Your task to perform on an android device: move an email to a new category in the gmail app Image 0: 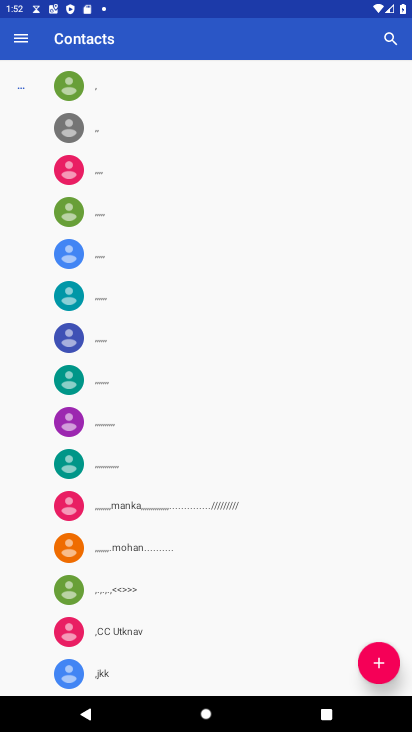
Step 0: press home button
Your task to perform on an android device: move an email to a new category in the gmail app Image 1: 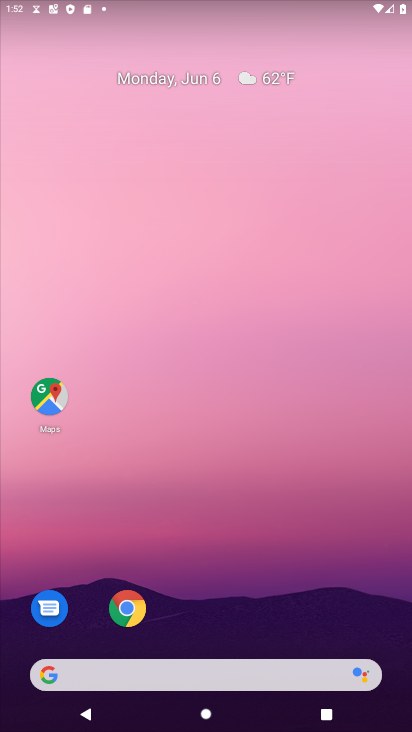
Step 1: drag from (359, 487) to (404, 130)
Your task to perform on an android device: move an email to a new category in the gmail app Image 2: 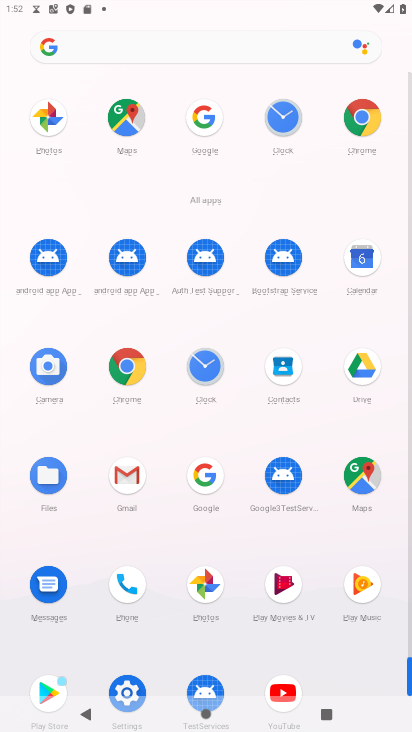
Step 2: click (121, 479)
Your task to perform on an android device: move an email to a new category in the gmail app Image 3: 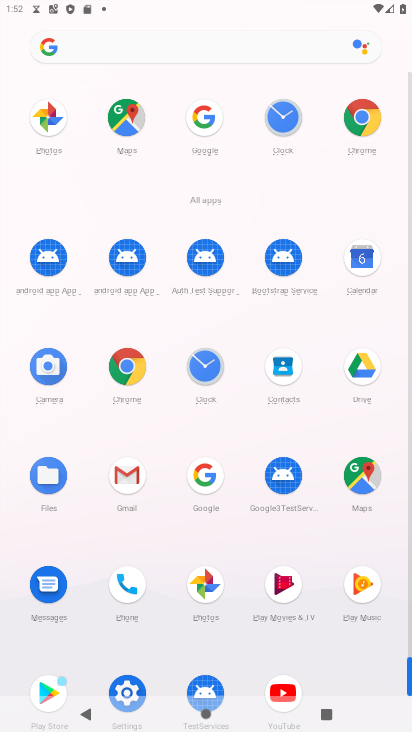
Step 3: click (123, 477)
Your task to perform on an android device: move an email to a new category in the gmail app Image 4: 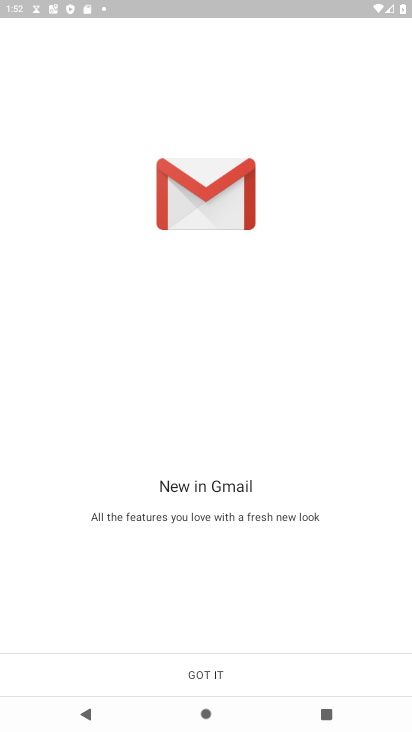
Step 4: click (220, 673)
Your task to perform on an android device: move an email to a new category in the gmail app Image 5: 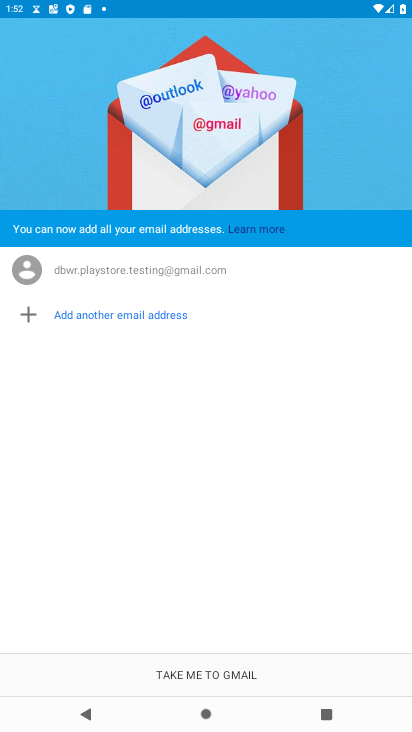
Step 5: click (207, 661)
Your task to perform on an android device: move an email to a new category in the gmail app Image 6: 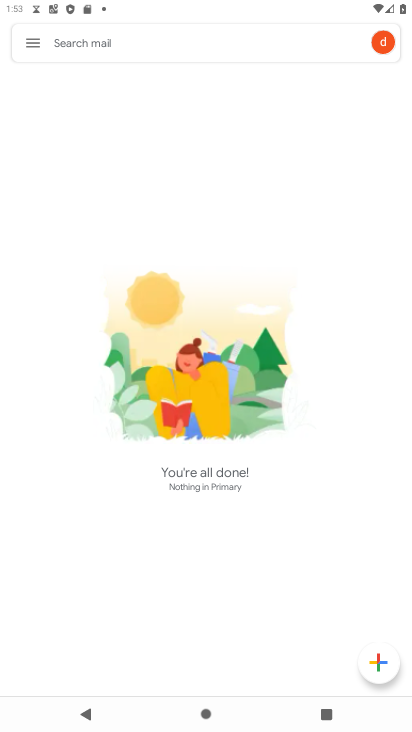
Step 6: click (21, 30)
Your task to perform on an android device: move an email to a new category in the gmail app Image 7: 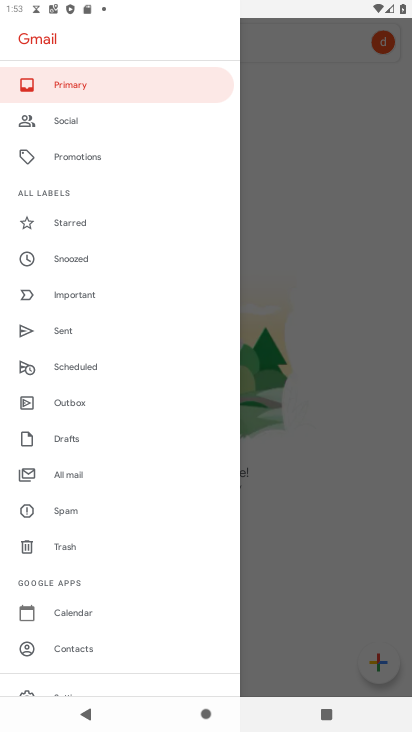
Step 7: click (77, 478)
Your task to perform on an android device: move an email to a new category in the gmail app Image 8: 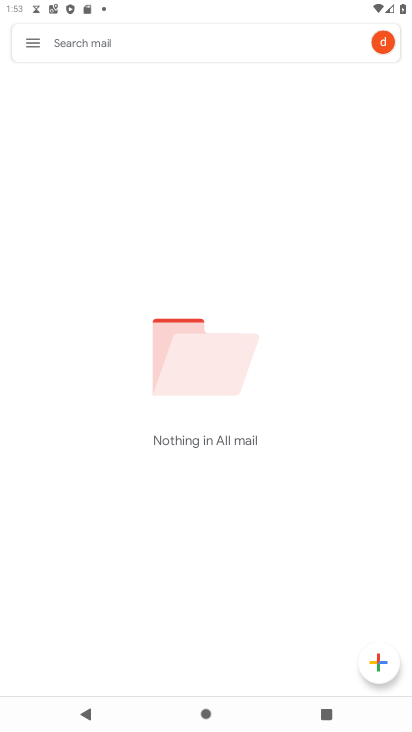
Step 8: task complete